Your task to perform on an android device: find snoozed emails in the gmail app Image 0: 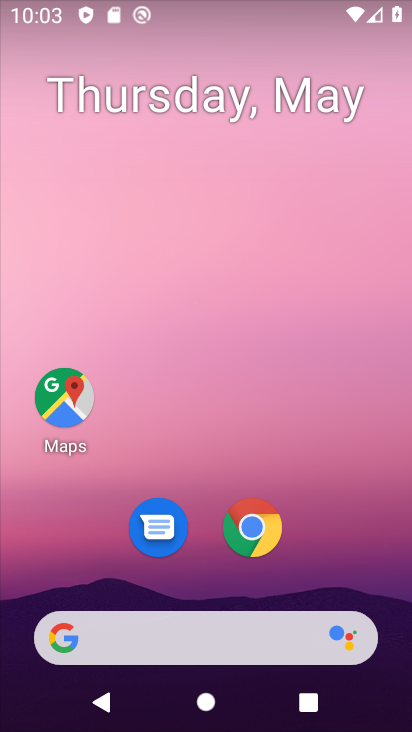
Step 0: drag from (289, 466) to (238, 26)
Your task to perform on an android device: find snoozed emails in the gmail app Image 1: 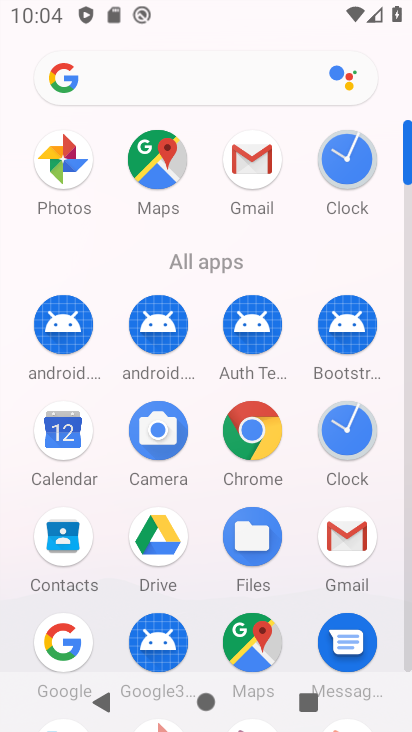
Step 1: click (257, 164)
Your task to perform on an android device: find snoozed emails in the gmail app Image 2: 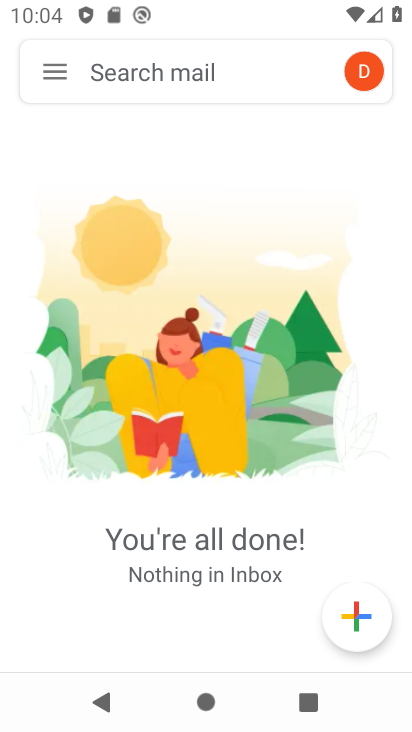
Step 2: click (51, 61)
Your task to perform on an android device: find snoozed emails in the gmail app Image 3: 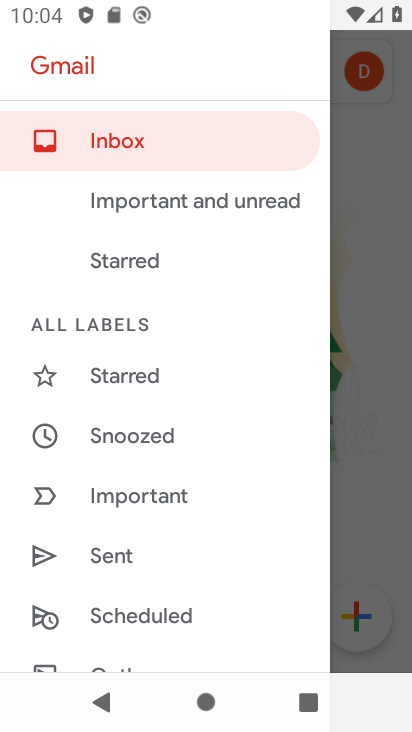
Step 3: click (128, 433)
Your task to perform on an android device: find snoozed emails in the gmail app Image 4: 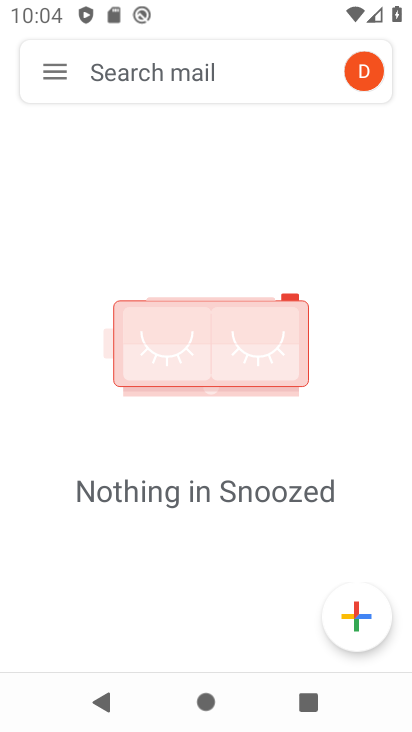
Step 4: task complete